Your task to perform on an android device: add a contact in the contacts app Image 0: 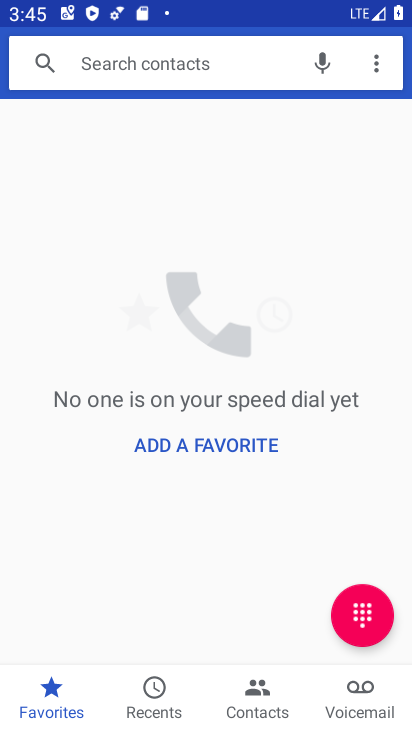
Step 0: press home button
Your task to perform on an android device: add a contact in the contacts app Image 1: 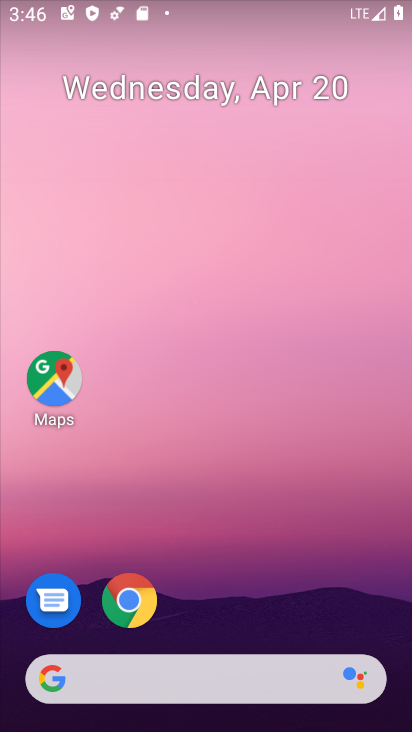
Step 1: drag from (242, 542) to (262, 34)
Your task to perform on an android device: add a contact in the contacts app Image 2: 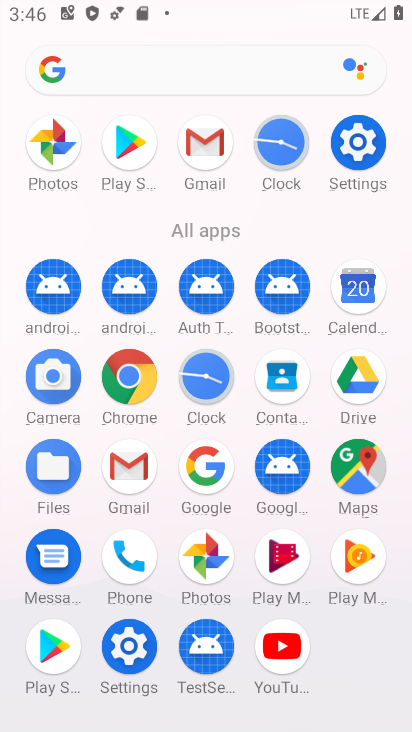
Step 2: click (285, 369)
Your task to perform on an android device: add a contact in the contacts app Image 3: 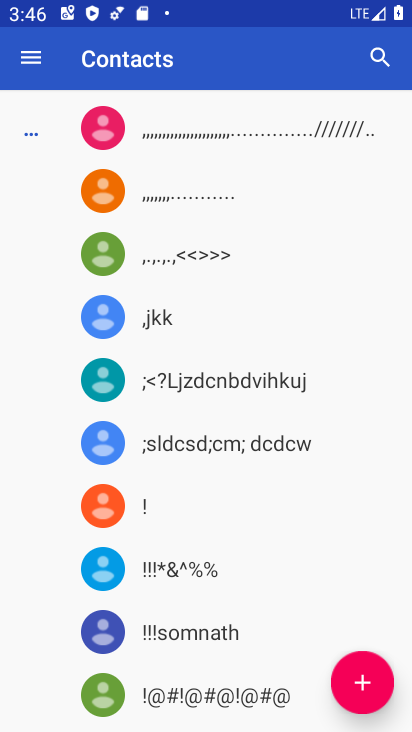
Step 3: click (365, 676)
Your task to perform on an android device: add a contact in the contacts app Image 4: 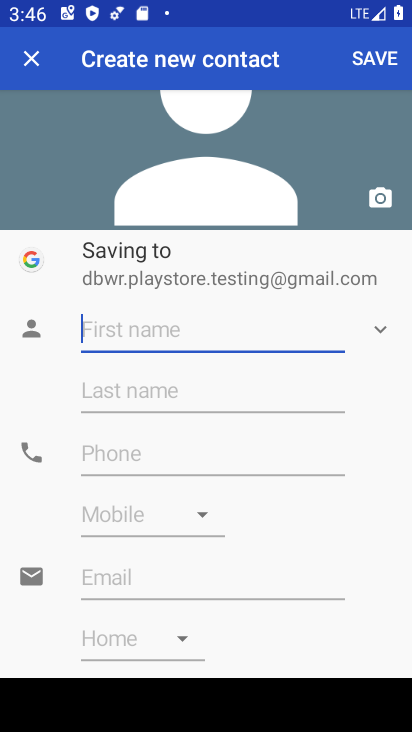
Step 4: click (171, 328)
Your task to perform on an android device: add a contact in the contacts app Image 5: 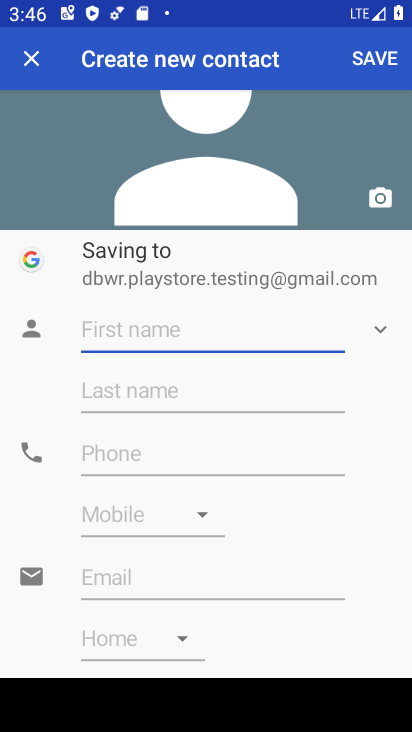
Step 5: type "kacha"
Your task to perform on an android device: add a contact in the contacts app Image 6: 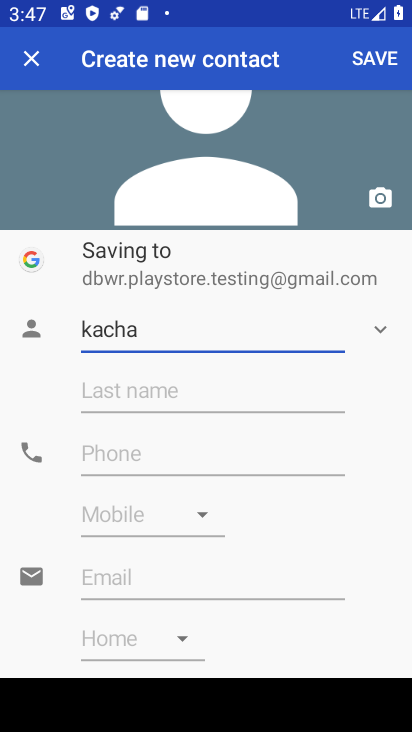
Step 6: click (379, 64)
Your task to perform on an android device: add a contact in the contacts app Image 7: 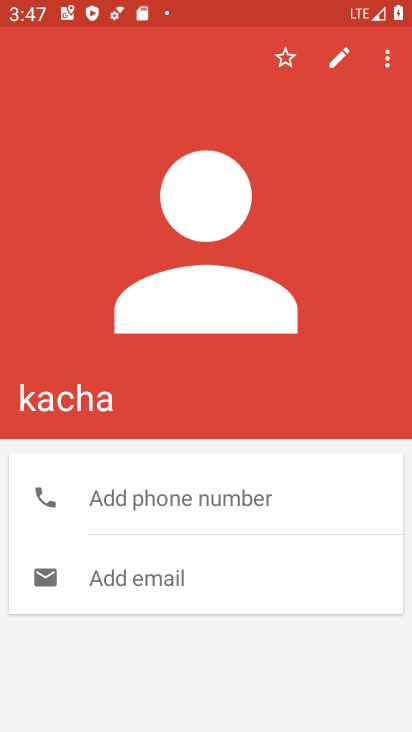
Step 7: task complete